Your task to perform on an android device: change keyboard looks Image 0: 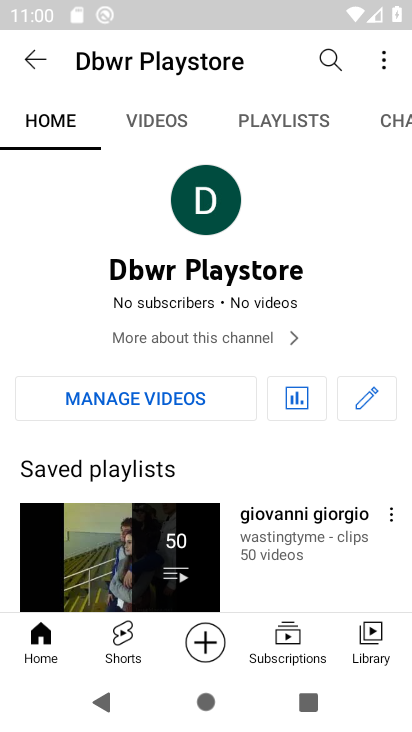
Step 0: press home button
Your task to perform on an android device: change keyboard looks Image 1: 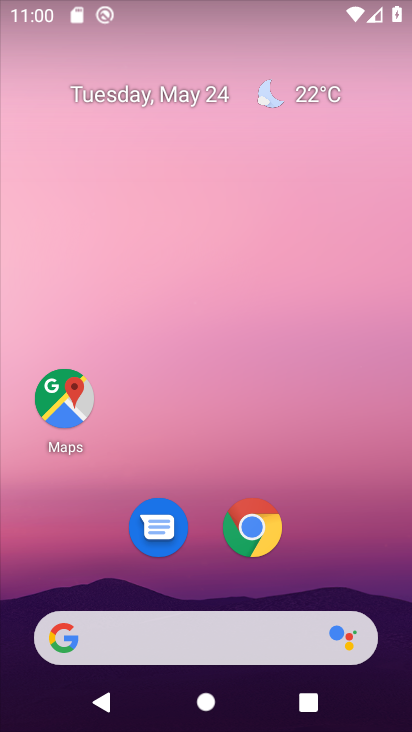
Step 1: drag from (181, 642) to (299, 88)
Your task to perform on an android device: change keyboard looks Image 2: 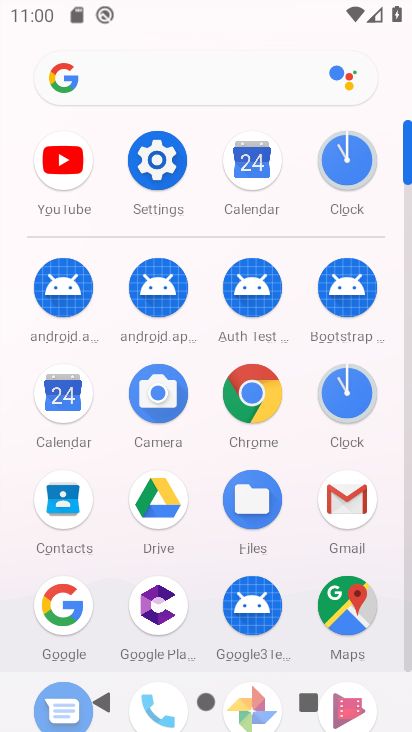
Step 2: click (144, 163)
Your task to perform on an android device: change keyboard looks Image 3: 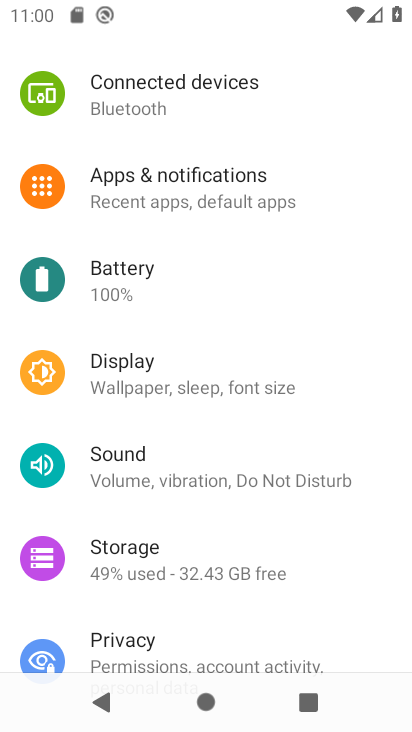
Step 3: drag from (225, 615) to (388, 76)
Your task to perform on an android device: change keyboard looks Image 4: 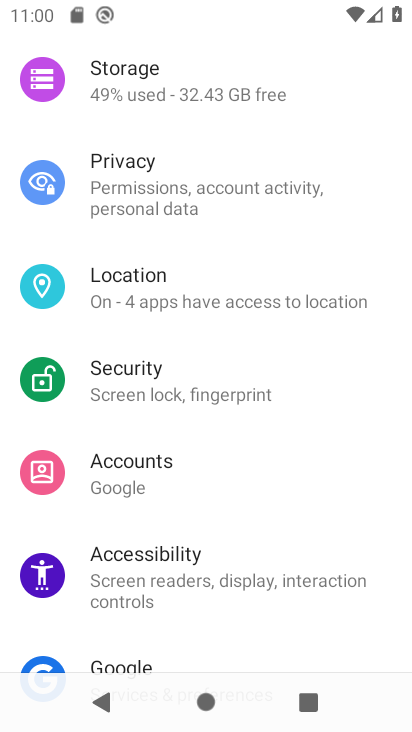
Step 4: drag from (234, 623) to (375, 106)
Your task to perform on an android device: change keyboard looks Image 5: 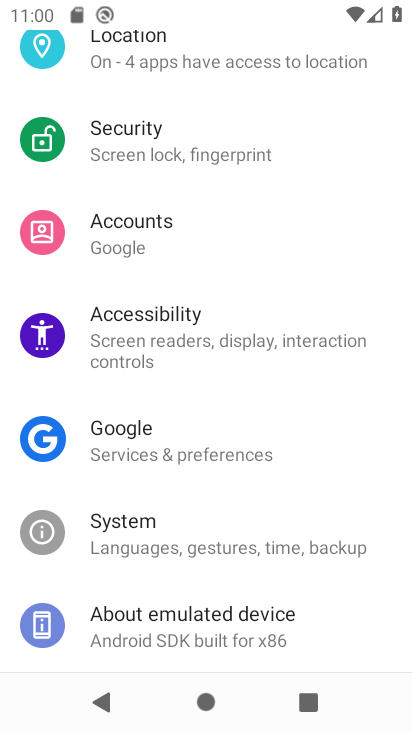
Step 5: click (159, 544)
Your task to perform on an android device: change keyboard looks Image 6: 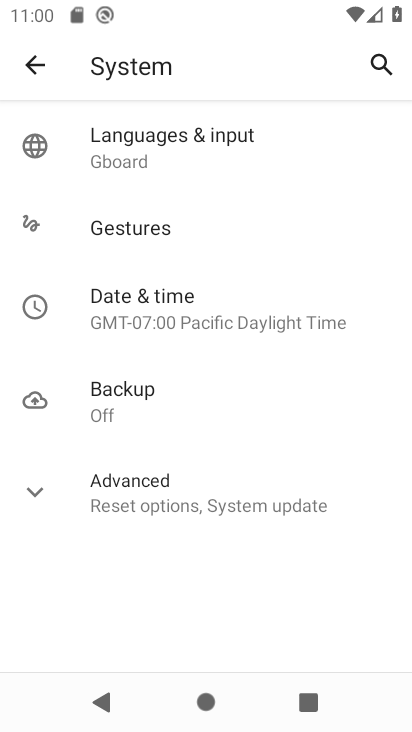
Step 6: click (156, 136)
Your task to perform on an android device: change keyboard looks Image 7: 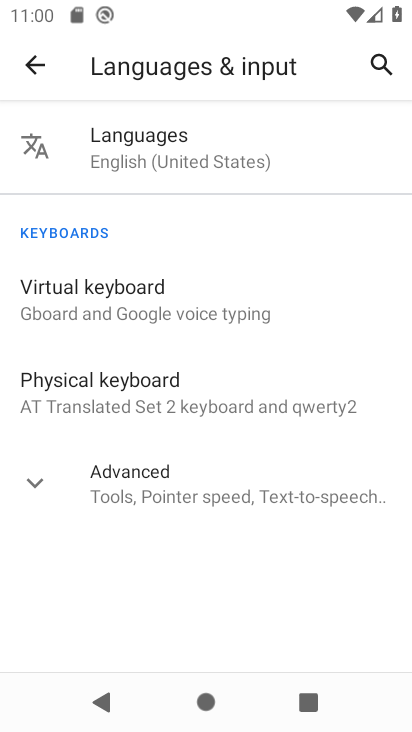
Step 7: click (120, 296)
Your task to perform on an android device: change keyboard looks Image 8: 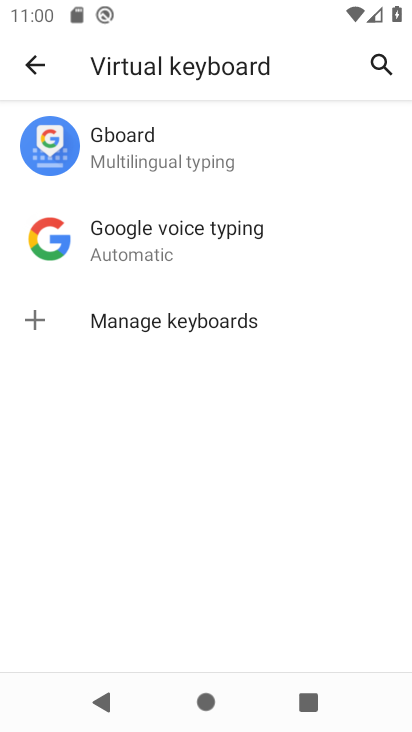
Step 8: click (147, 162)
Your task to perform on an android device: change keyboard looks Image 9: 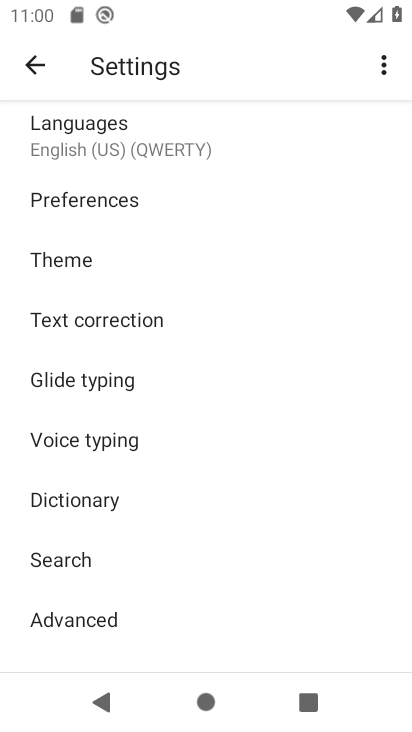
Step 9: click (80, 262)
Your task to perform on an android device: change keyboard looks Image 10: 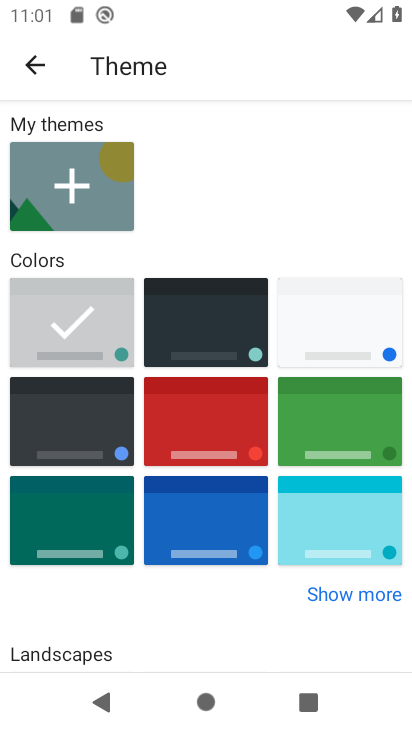
Step 10: click (225, 500)
Your task to perform on an android device: change keyboard looks Image 11: 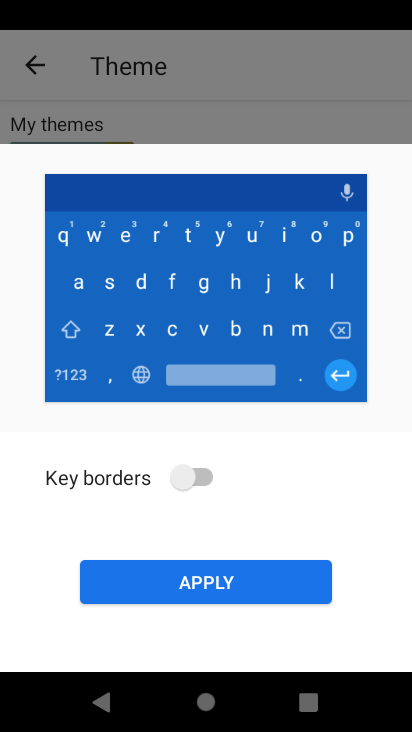
Step 11: click (230, 579)
Your task to perform on an android device: change keyboard looks Image 12: 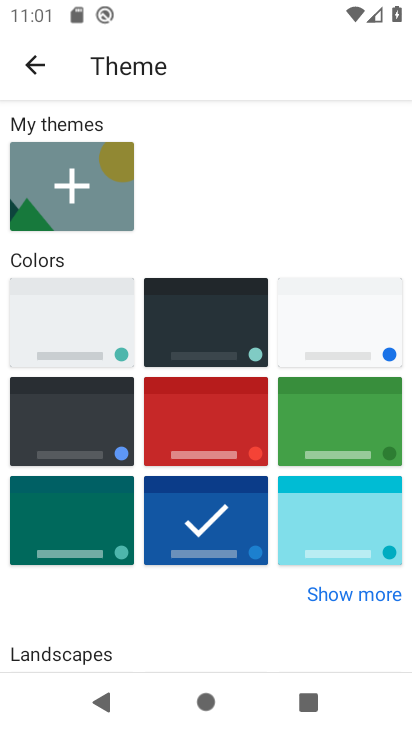
Step 12: task complete